Your task to perform on an android device: turn off translation in the chrome app Image 0: 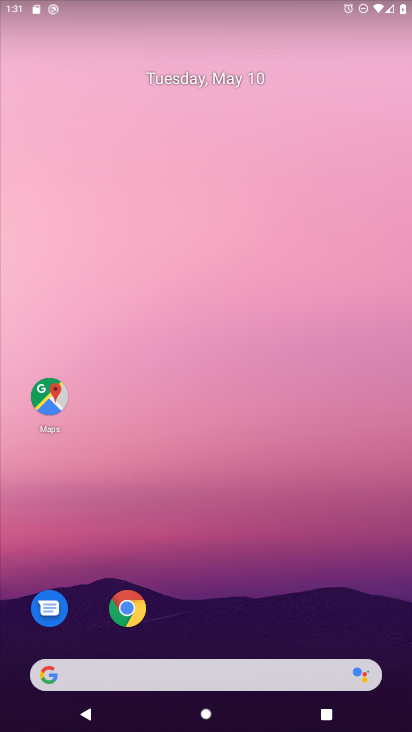
Step 0: drag from (227, 564) to (238, 159)
Your task to perform on an android device: turn off translation in the chrome app Image 1: 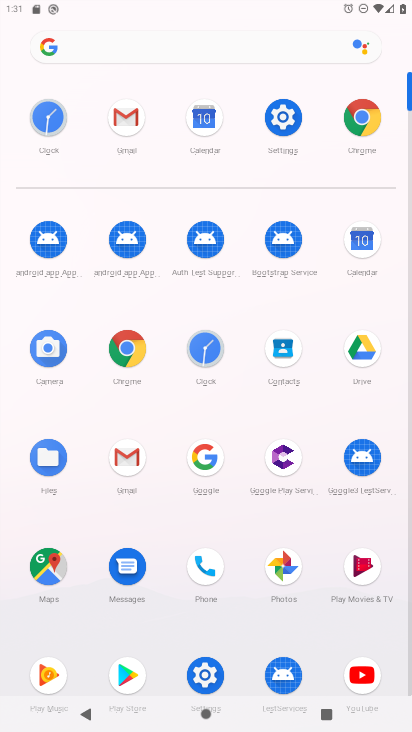
Step 1: click (139, 353)
Your task to perform on an android device: turn off translation in the chrome app Image 2: 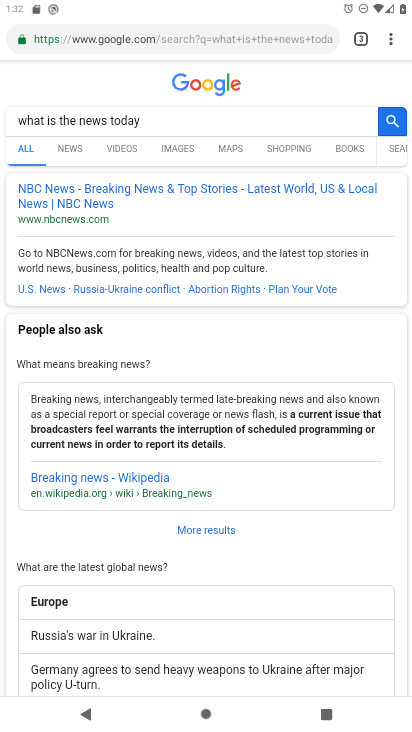
Step 2: drag from (385, 46) to (248, 438)
Your task to perform on an android device: turn off translation in the chrome app Image 3: 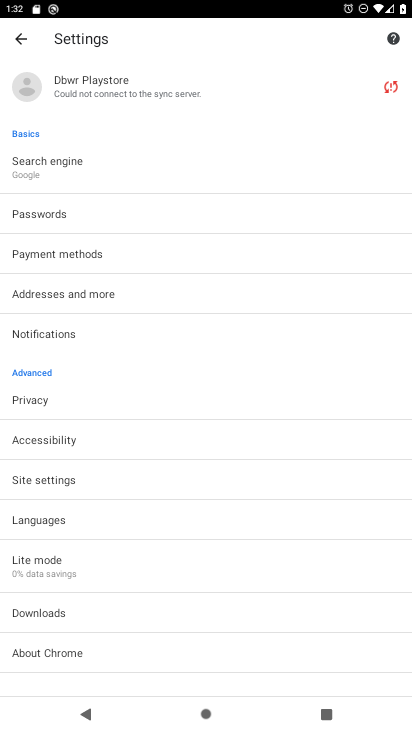
Step 3: click (59, 516)
Your task to perform on an android device: turn off translation in the chrome app Image 4: 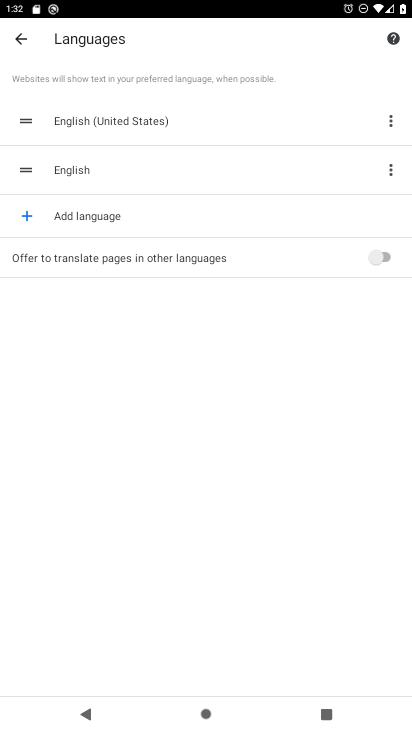
Step 4: task complete